Your task to perform on an android device: turn off smart reply in the gmail app Image 0: 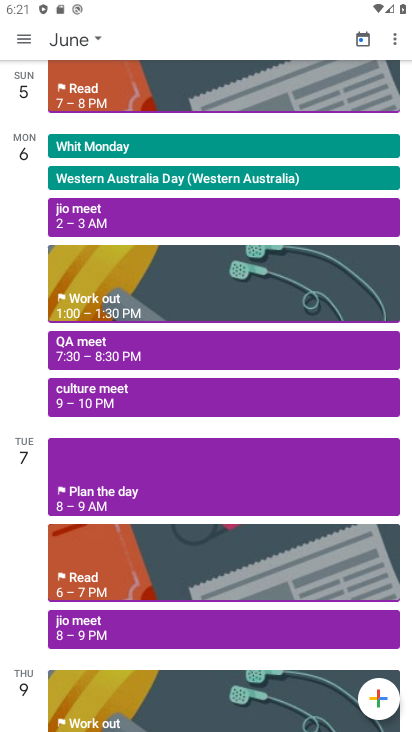
Step 0: press home button
Your task to perform on an android device: turn off smart reply in the gmail app Image 1: 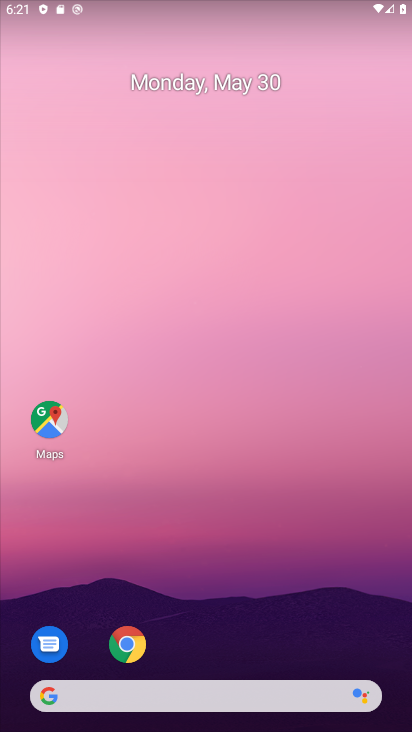
Step 1: drag from (226, 651) to (260, 144)
Your task to perform on an android device: turn off smart reply in the gmail app Image 2: 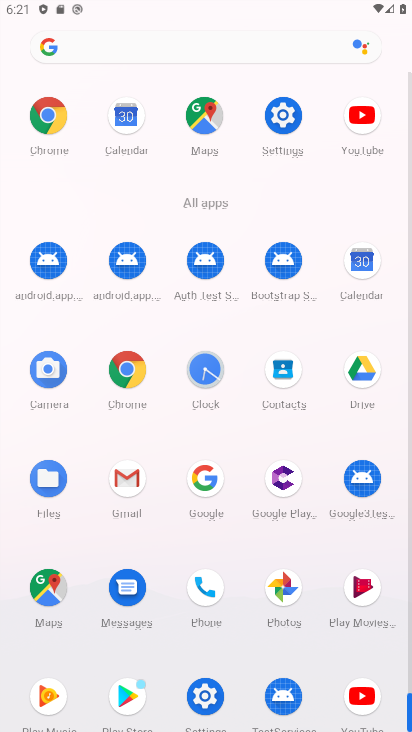
Step 2: click (122, 493)
Your task to perform on an android device: turn off smart reply in the gmail app Image 3: 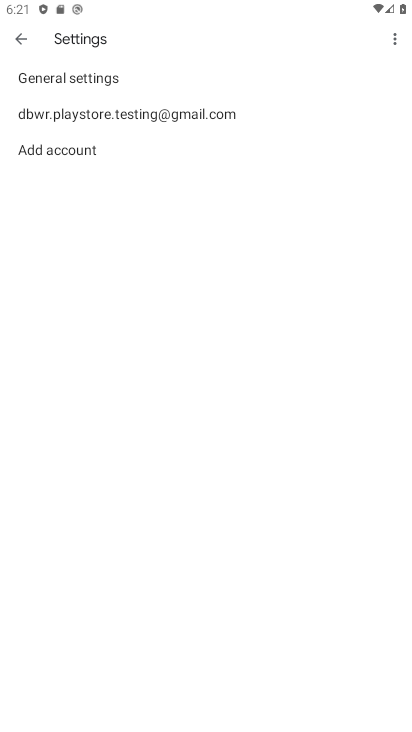
Step 3: click (59, 116)
Your task to perform on an android device: turn off smart reply in the gmail app Image 4: 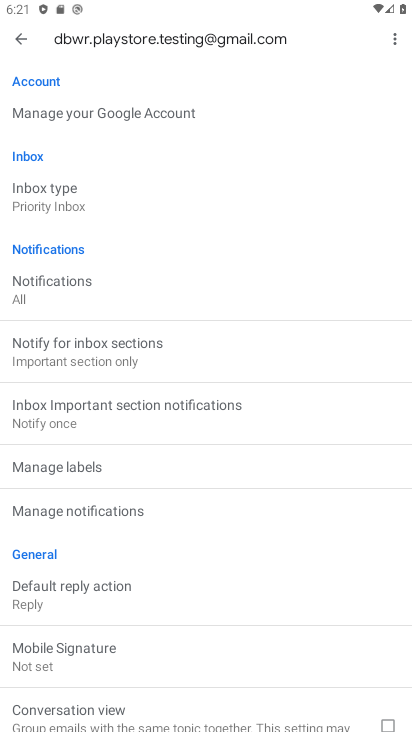
Step 4: drag from (95, 642) to (177, 270)
Your task to perform on an android device: turn off smart reply in the gmail app Image 5: 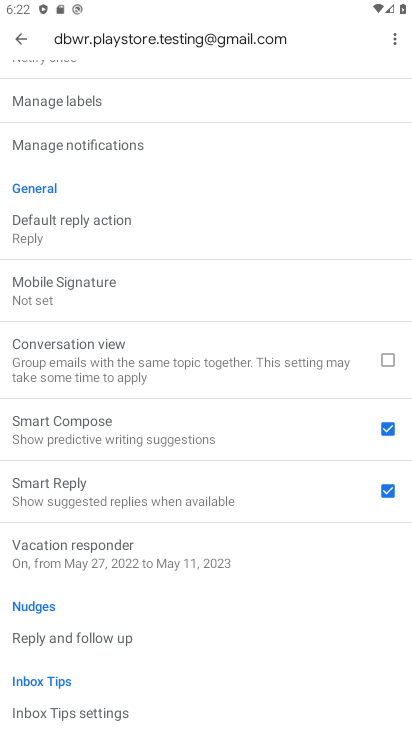
Step 5: click (395, 490)
Your task to perform on an android device: turn off smart reply in the gmail app Image 6: 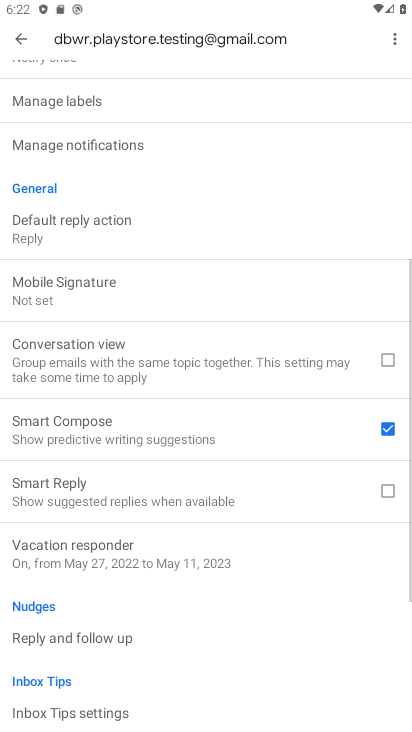
Step 6: task complete